Your task to perform on an android device: turn on priority inbox in the gmail app Image 0: 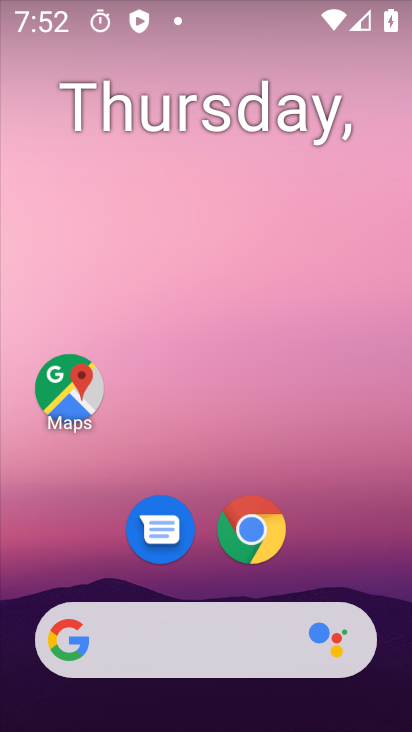
Step 0: drag from (400, 714) to (336, 147)
Your task to perform on an android device: turn on priority inbox in the gmail app Image 1: 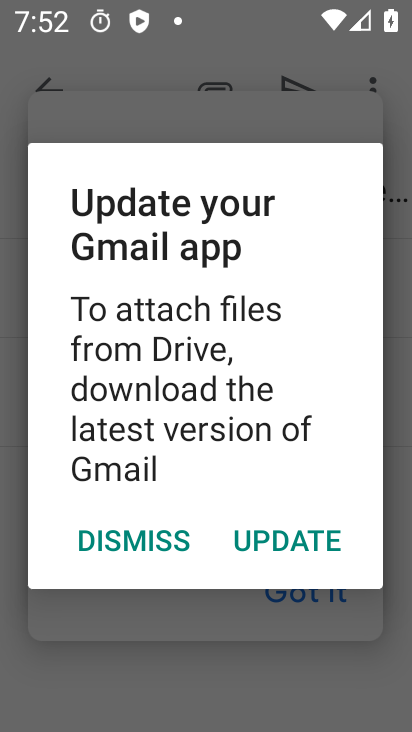
Step 1: click (283, 547)
Your task to perform on an android device: turn on priority inbox in the gmail app Image 2: 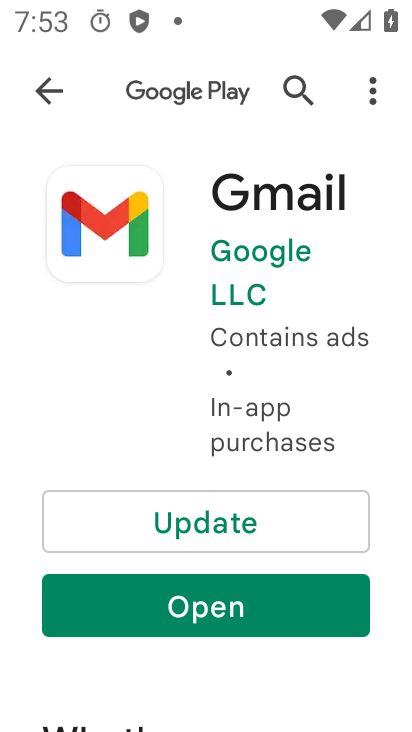
Step 2: click (258, 522)
Your task to perform on an android device: turn on priority inbox in the gmail app Image 3: 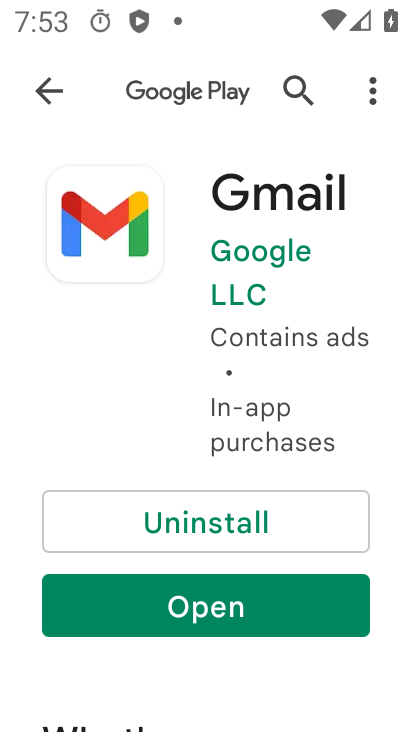
Step 3: click (229, 603)
Your task to perform on an android device: turn on priority inbox in the gmail app Image 4: 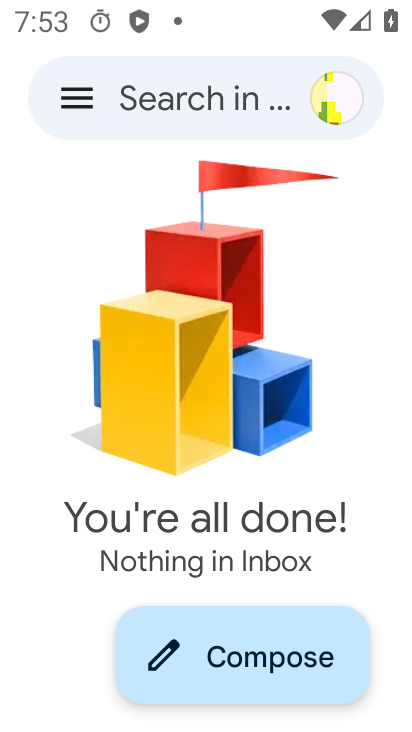
Step 4: click (71, 96)
Your task to perform on an android device: turn on priority inbox in the gmail app Image 5: 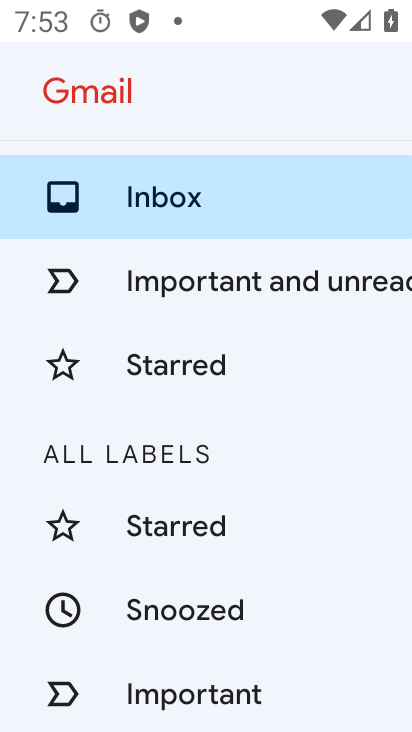
Step 5: drag from (331, 702) to (291, 238)
Your task to perform on an android device: turn on priority inbox in the gmail app Image 6: 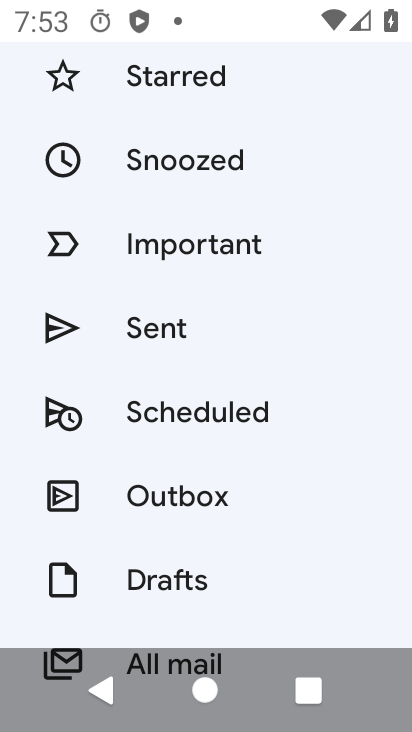
Step 6: drag from (362, 624) to (346, 294)
Your task to perform on an android device: turn on priority inbox in the gmail app Image 7: 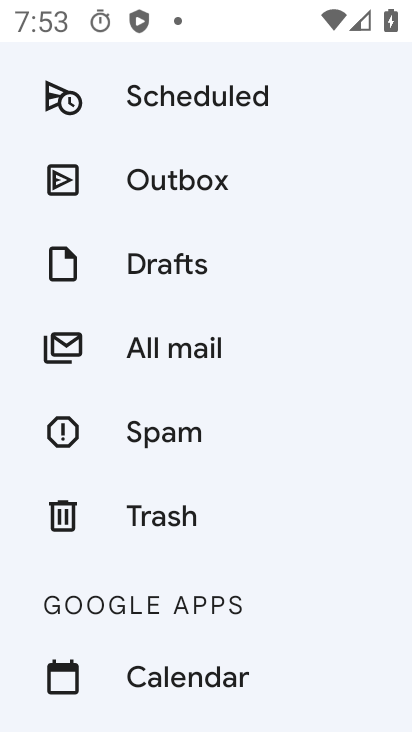
Step 7: drag from (346, 685) to (332, 399)
Your task to perform on an android device: turn on priority inbox in the gmail app Image 8: 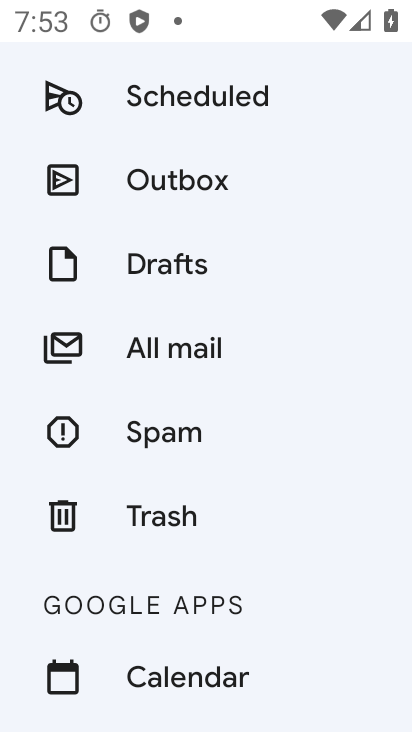
Step 8: drag from (309, 701) to (292, 331)
Your task to perform on an android device: turn on priority inbox in the gmail app Image 9: 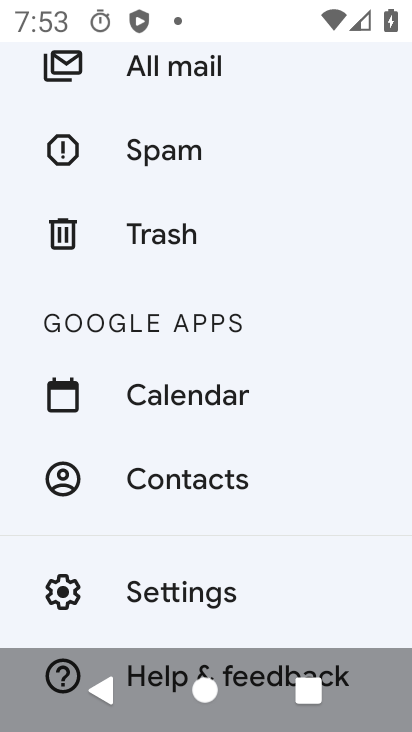
Step 9: click (198, 594)
Your task to perform on an android device: turn on priority inbox in the gmail app Image 10: 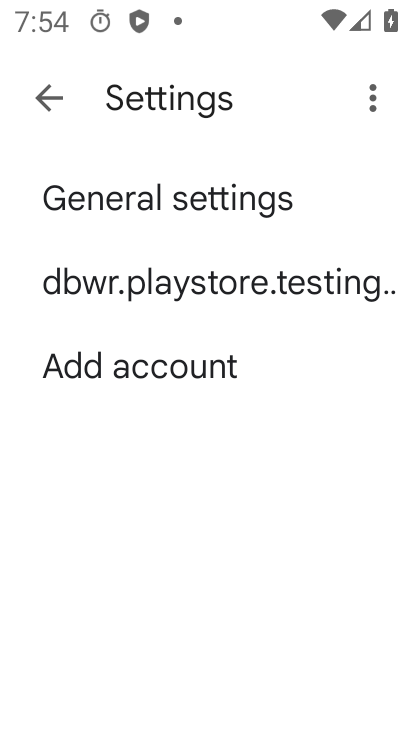
Step 10: click (128, 293)
Your task to perform on an android device: turn on priority inbox in the gmail app Image 11: 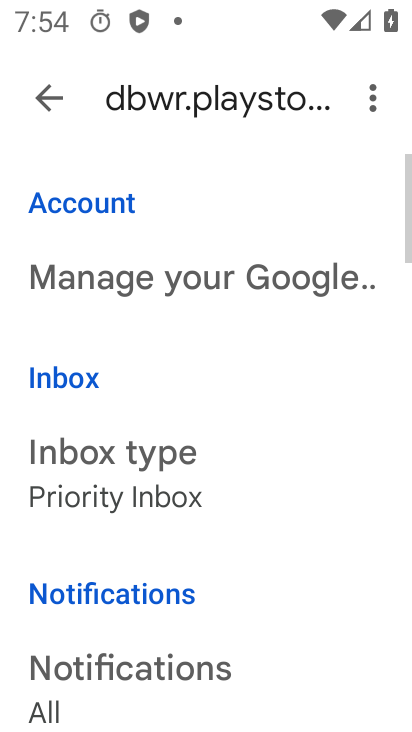
Step 11: click (128, 487)
Your task to perform on an android device: turn on priority inbox in the gmail app Image 12: 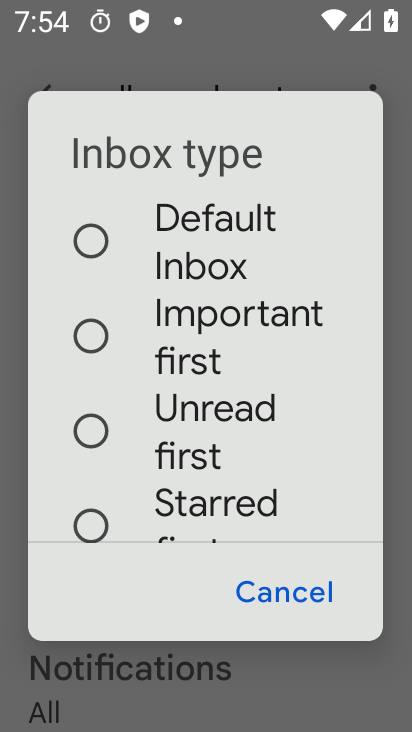
Step 12: task complete